Your task to perform on an android device: What's on my calendar today? Image 0: 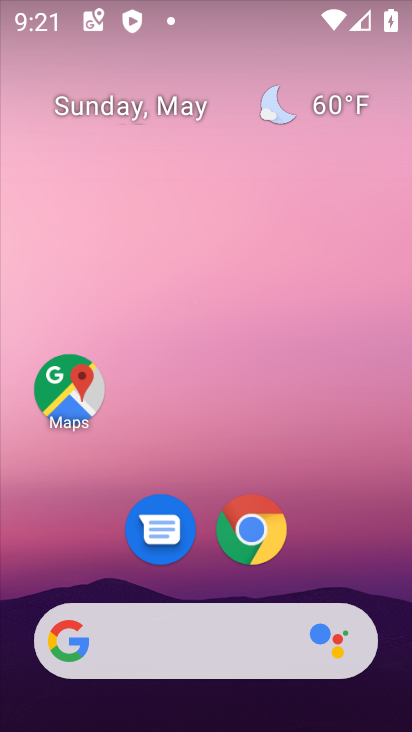
Step 0: drag from (393, 568) to (382, 200)
Your task to perform on an android device: What's on my calendar today? Image 1: 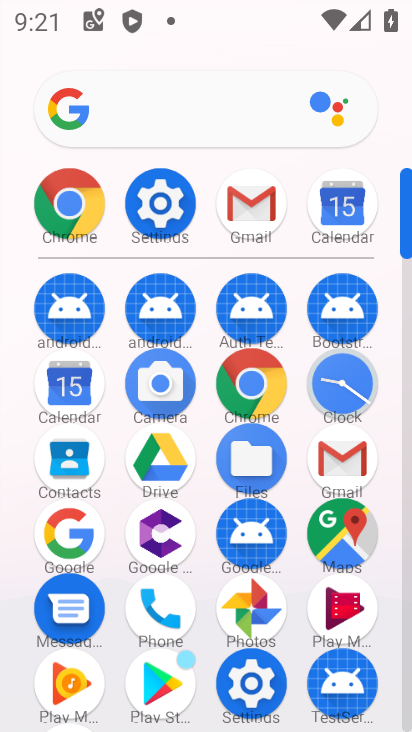
Step 1: click (60, 375)
Your task to perform on an android device: What's on my calendar today? Image 2: 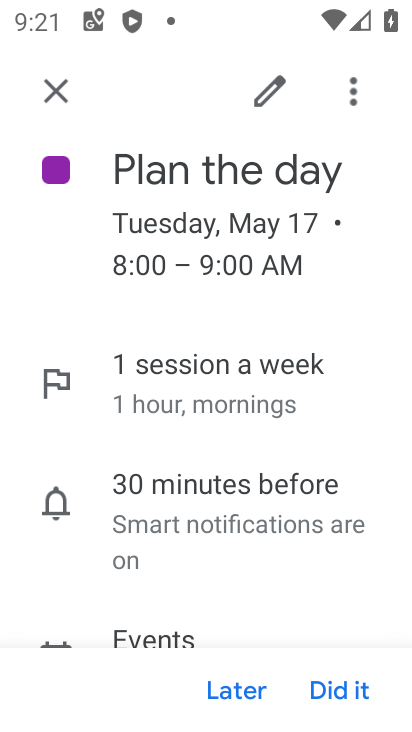
Step 2: click (49, 81)
Your task to perform on an android device: What's on my calendar today? Image 3: 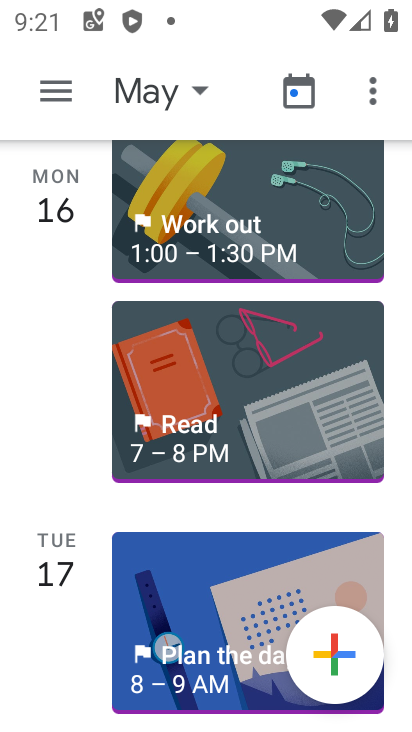
Step 3: drag from (259, 229) to (261, 413)
Your task to perform on an android device: What's on my calendar today? Image 4: 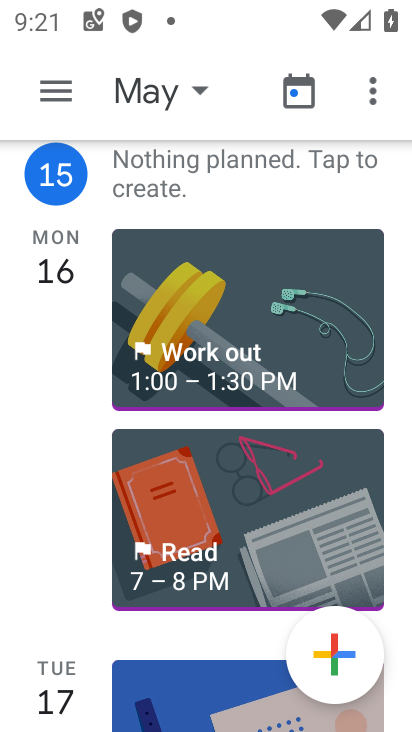
Step 4: click (201, 97)
Your task to perform on an android device: What's on my calendar today? Image 5: 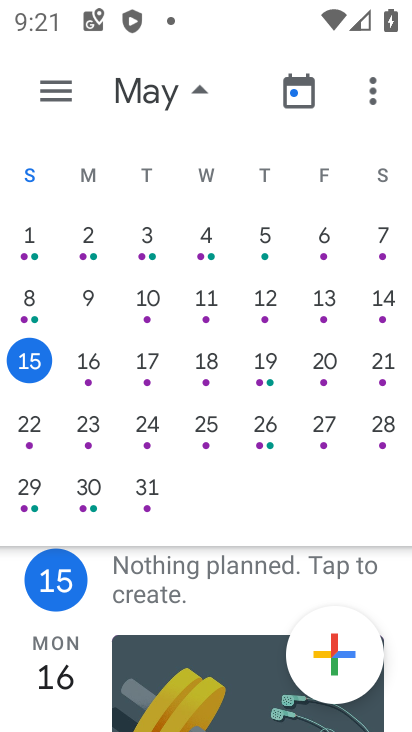
Step 5: click (85, 360)
Your task to perform on an android device: What's on my calendar today? Image 6: 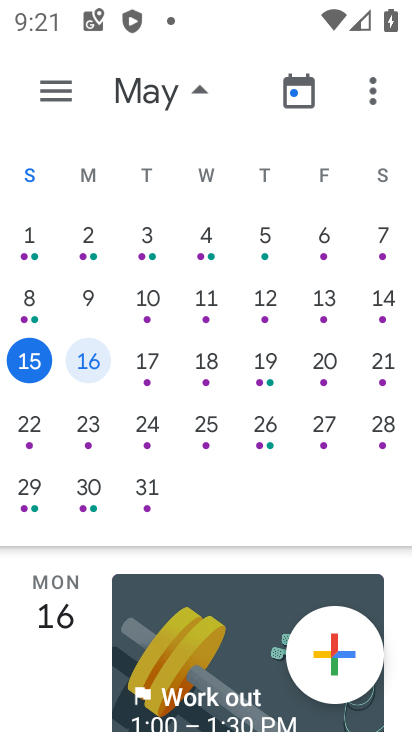
Step 6: task complete